Your task to perform on an android device: toggle improve location accuracy Image 0: 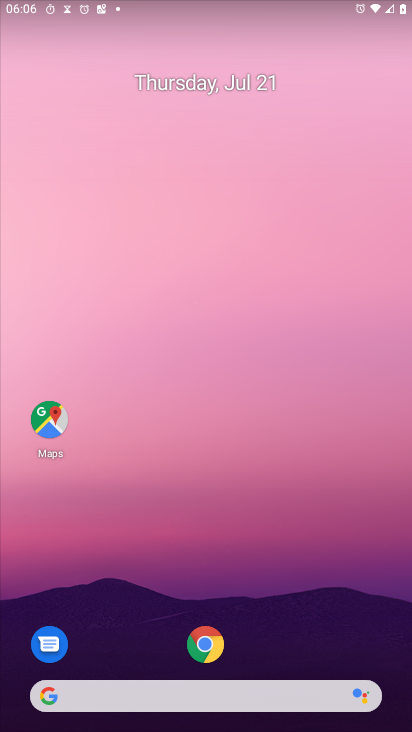
Step 0: press home button
Your task to perform on an android device: toggle improve location accuracy Image 1: 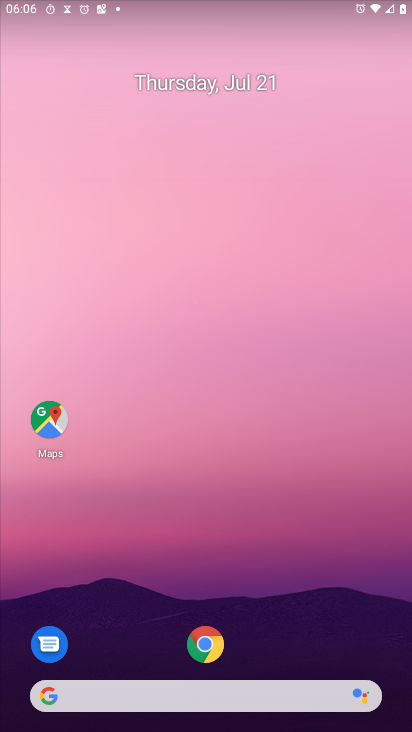
Step 1: drag from (284, 580) to (266, 184)
Your task to perform on an android device: toggle improve location accuracy Image 2: 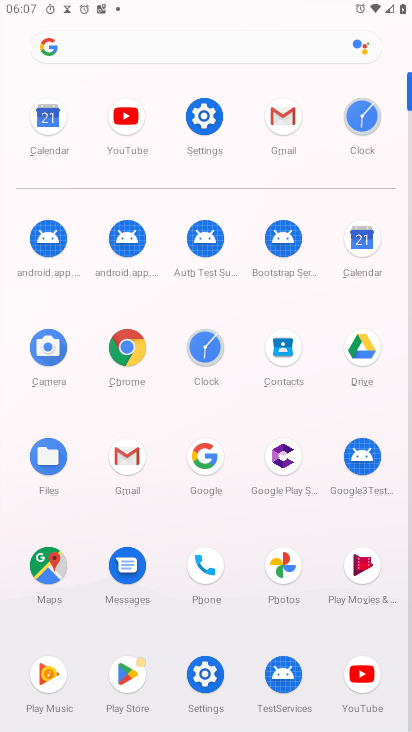
Step 2: click (202, 107)
Your task to perform on an android device: toggle improve location accuracy Image 3: 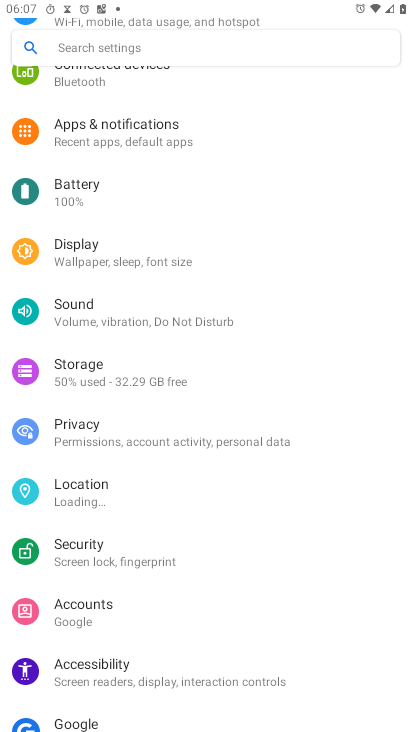
Step 3: click (67, 487)
Your task to perform on an android device: toggle improve location accuracy Image 4: 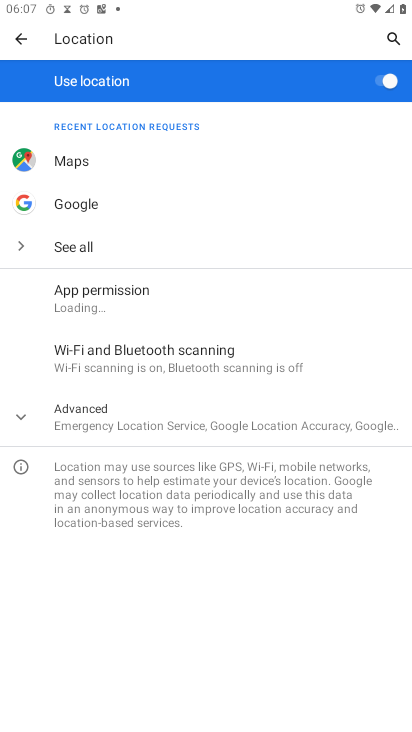
Step 4: click (18, 415)
Your task to perform on an android device: toggle improve location accuracy Image 5: 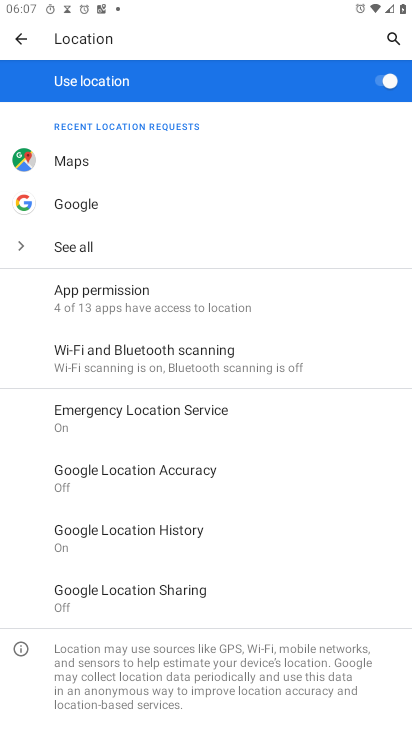
Step 5: click (170, 472)
Your task to perform on an android device: toggle improve location accuracy Image 6: 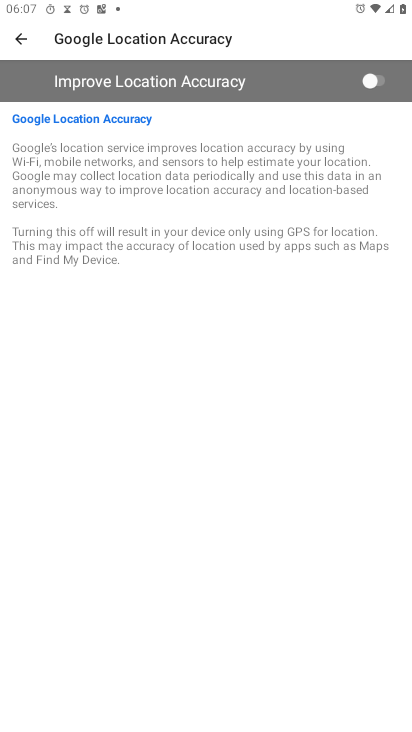
Step 6: click (383, 81)
Your task to perform on an android device: toggle improve location accuracy Image 7: 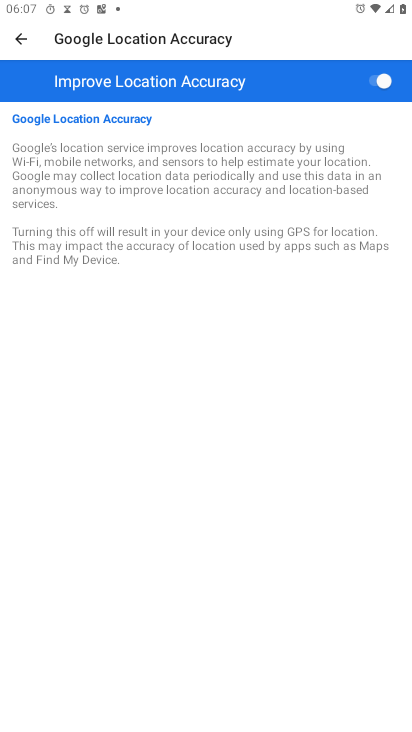
Step 7: task complete